Your task to perform on an android device: change keyboard looks Image 0: 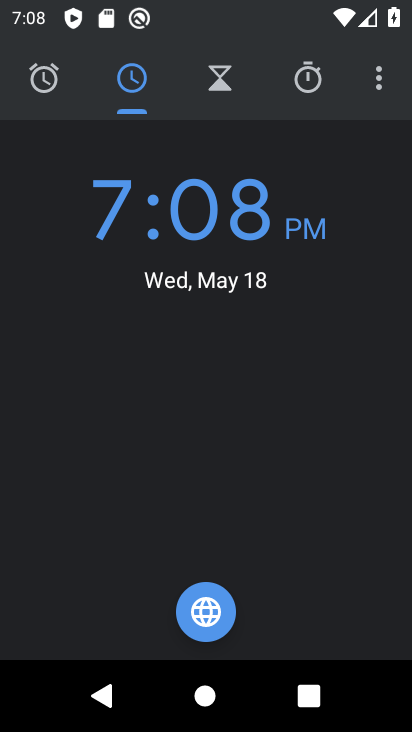
Step 0: press home button
Your task to perform on an android device: change keyboard looks Image 1: 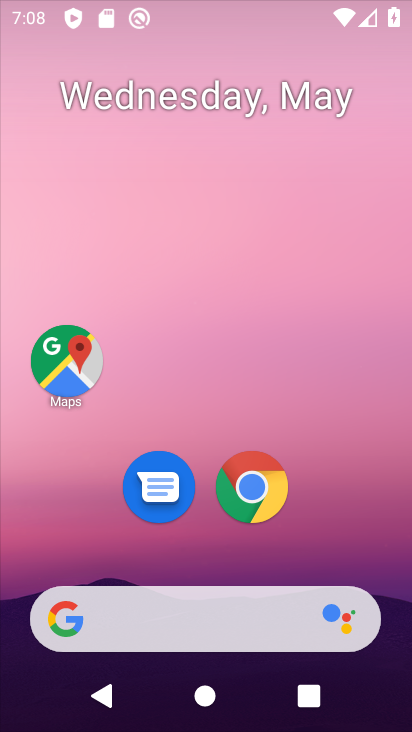
Step 1: drag from (254, 241) to (255, 132)
Your task to perform on an android device: change keyboard looks Image 2: 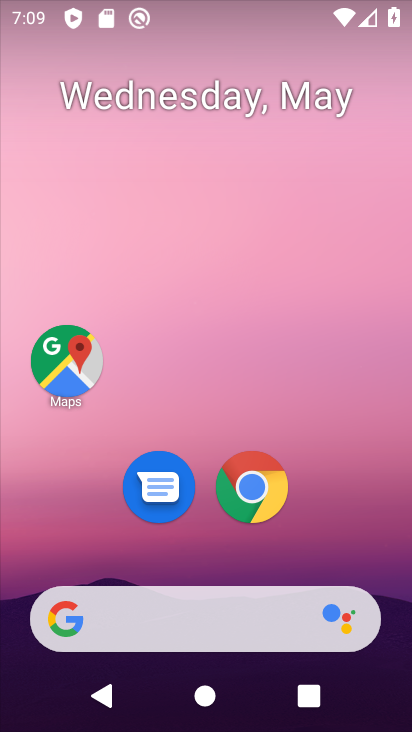
Step 2: drag from (270, 655) to (249, 361)
Your task to perform on an android device: change keyboard looks Image 3: 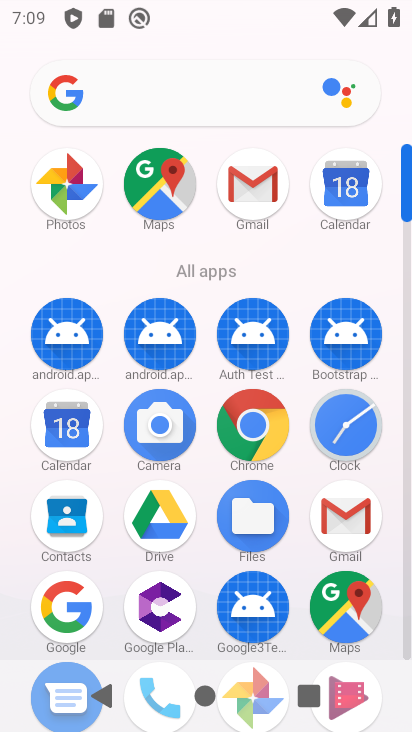
Step 3: drag from (123, 558) to (179, 187)
Your task to perform on an android device: change keyboard looks Image 4: 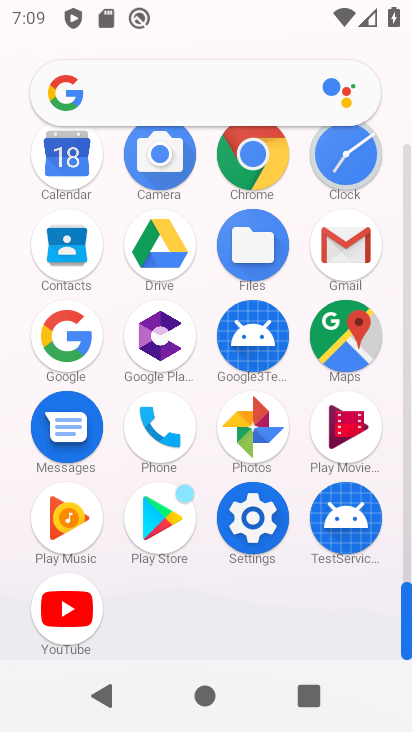
Step 4: click (266, 520)
Your task to perform on an android device: change keyboard looks Image 5: 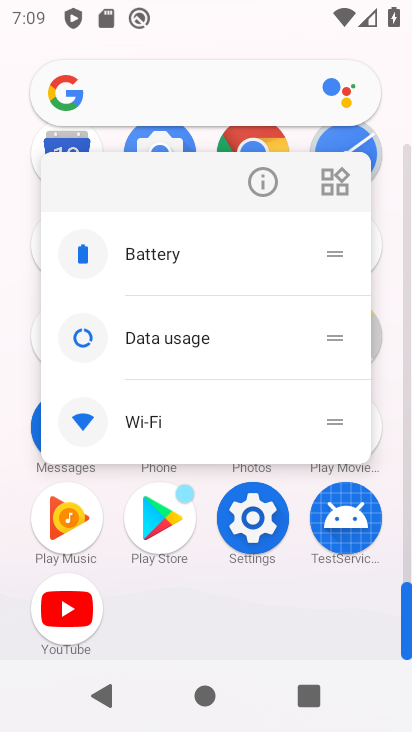
Step 5: click (249, 519)
Your task to perform on an android device: change keyboard looks Image 6: 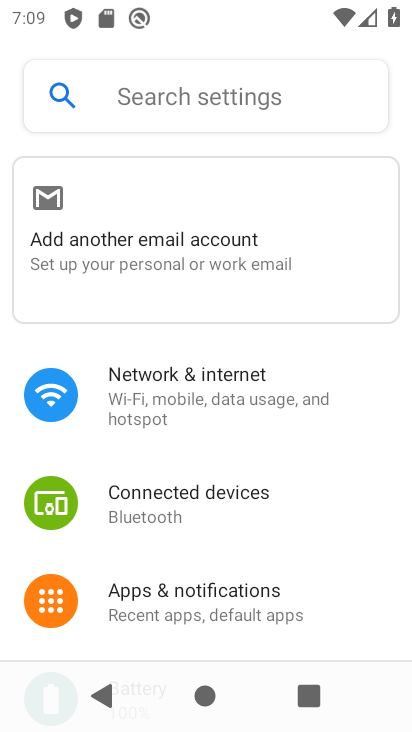
Step 6: click (131, 81)
Your task to perform on an android device: change keyboard looks Image 7: 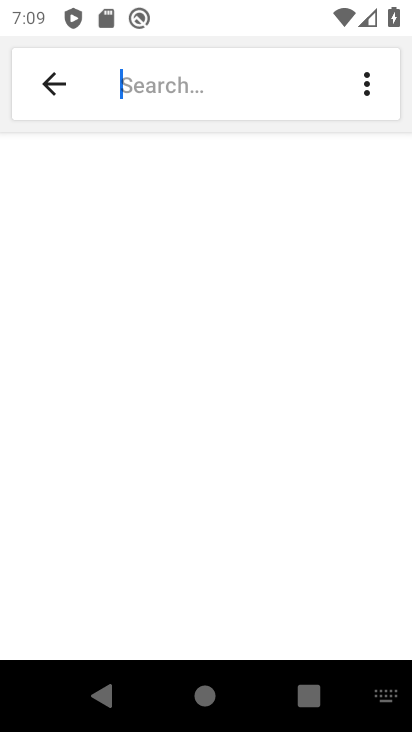
Step 7: click (386, 703)
Your task to perform on an android device: change keyboard looks Image 8: 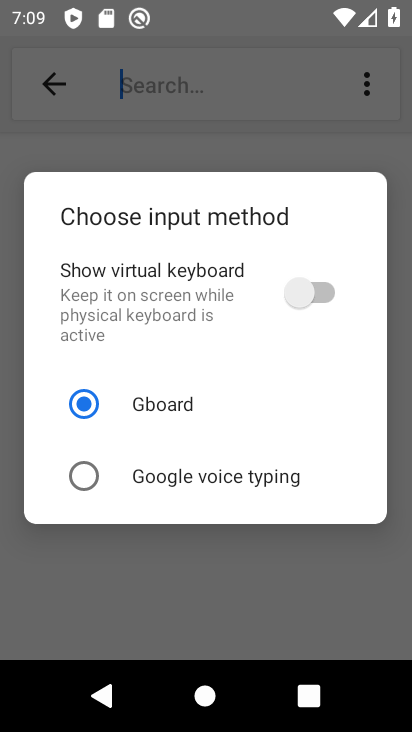
Step 8: click (311, 293)
Your task to perform on an android device: change keyboard looks Image 9: 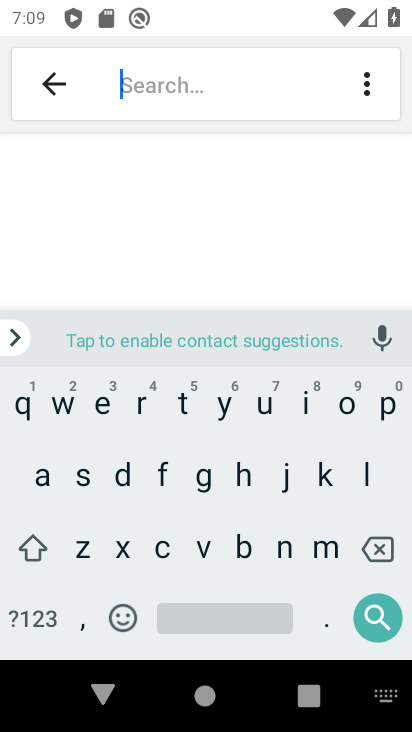
Step 9: click (318, 471)
Your task to perform on an android device: change keyboard looks Image 10: 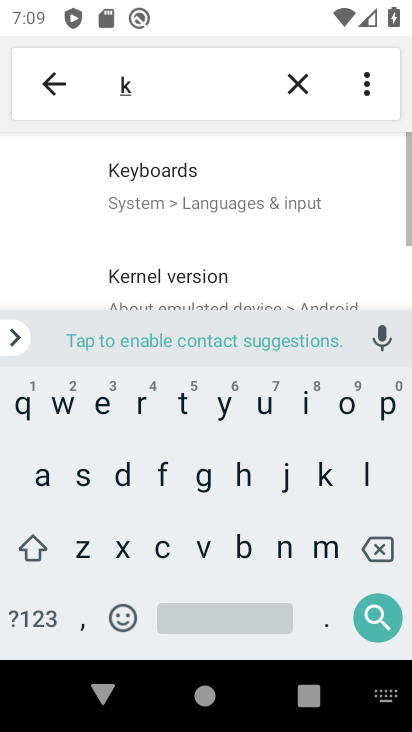
Step 10: click (102, 409)
Your task to perform on an android device: change keyboard looks Image 11: 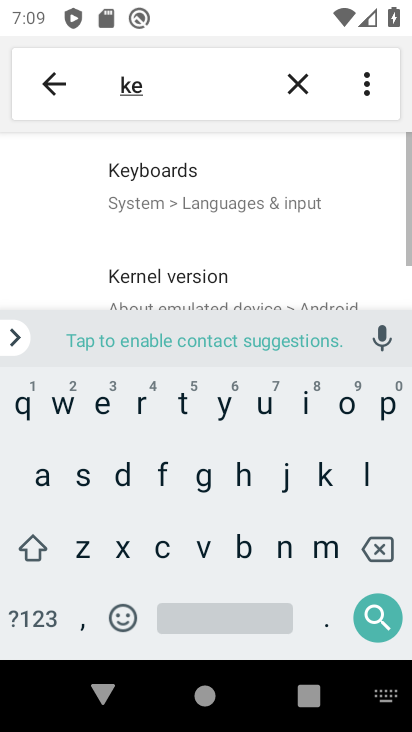
Step 11: click (205, 192)
Your task to perform on an android device: change keyboard looks Image 12: 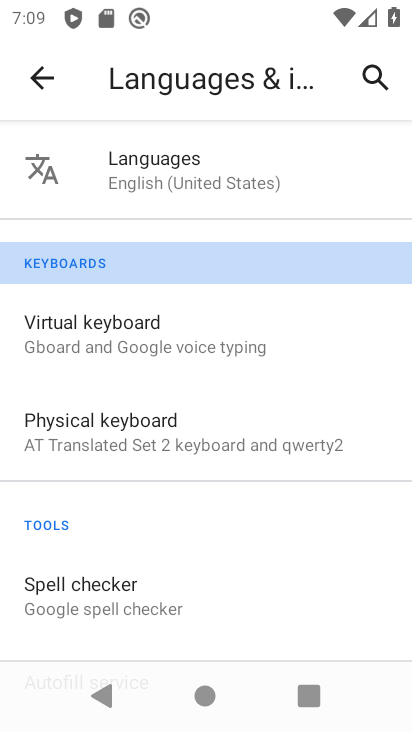
Step 12: click (134, 337)
Your task to perform on an android device: change keyboard looks Image 13: 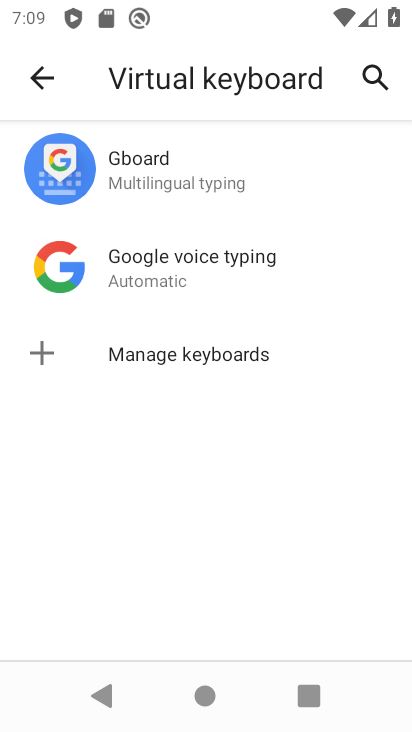
Step 13: click (143, 195)
Your task to perform on an android device: change keyboard looks Image 14: 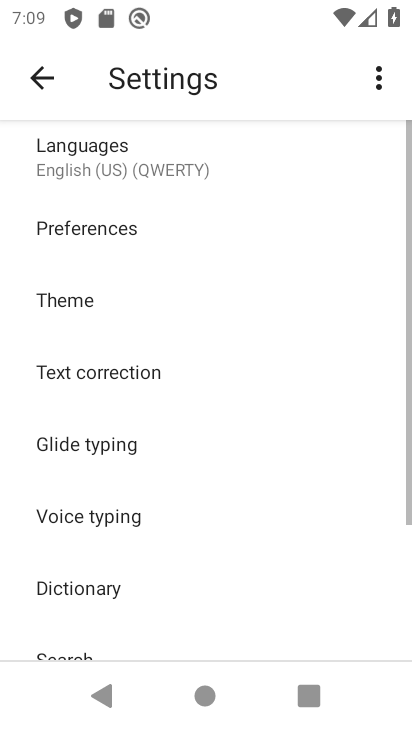
Step 14: click (116, 299)
Your task to perform on an android device: change keyboard looks Image 15: 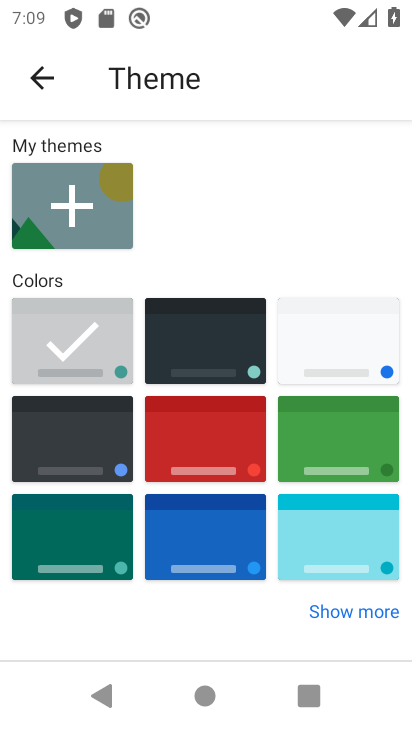
Step 15: click (89, 459)
Your task to perform on an android device: change keyboard looks Image 16: 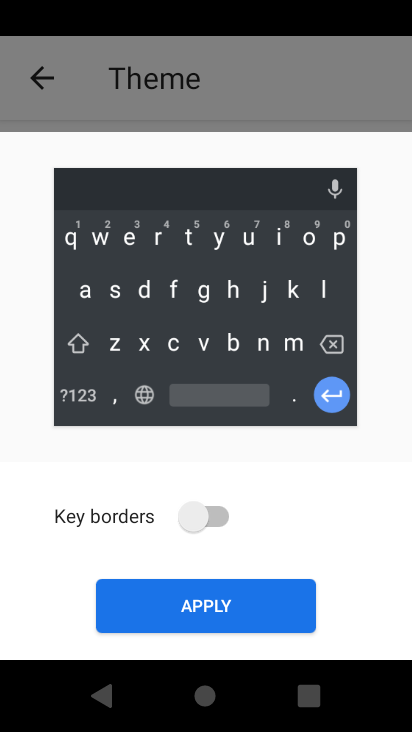
Step 16: click (214, 516)
Your task to perform on an android device: change keyboard looks Image 17: 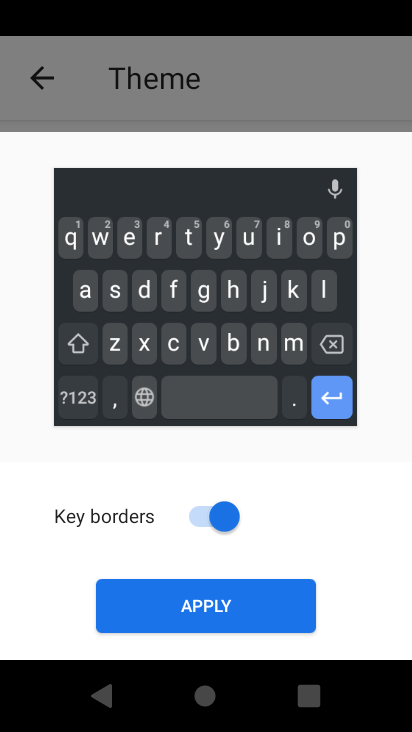
Step 17: click (211, 517)
Your task to perform on an android device: change keyboard looks Image 18: 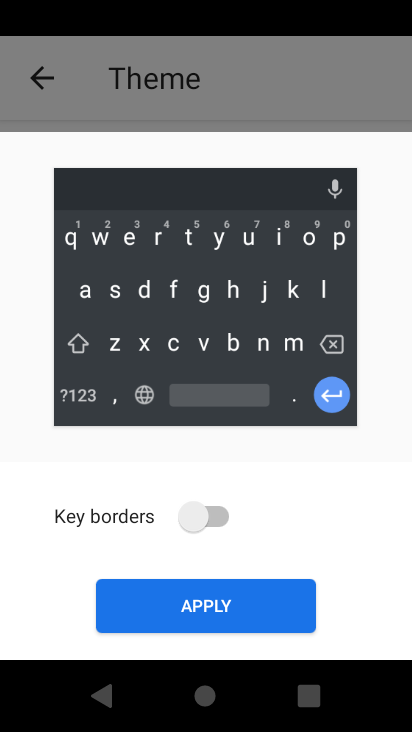
Step 18: click (252, 618)
Your task to perform on an android device: change keyboard looks Image 19: 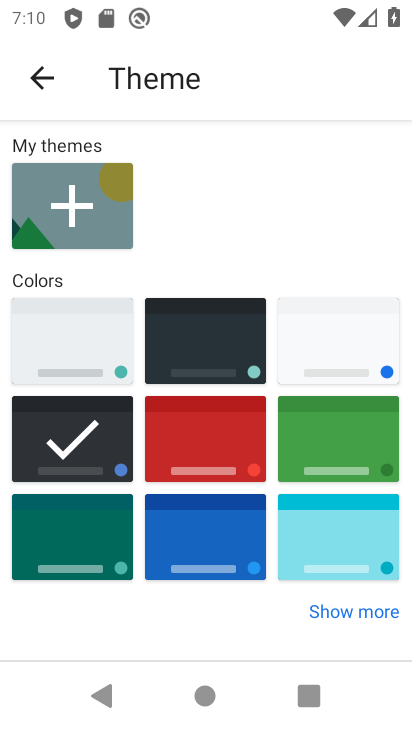
Step 19: task complete